Your task to perform on an android device: Search for pizza restaurants on Maps Image 0: 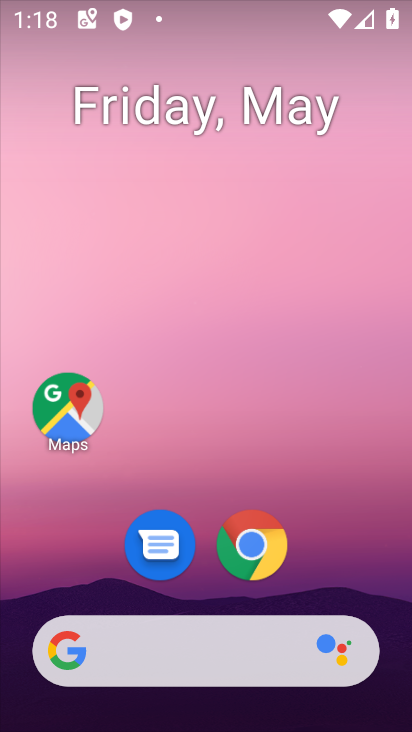
Step 0: click (82, 407)
Your task to perform on an android device: Search for pizza restaurants on Maps Image 1: 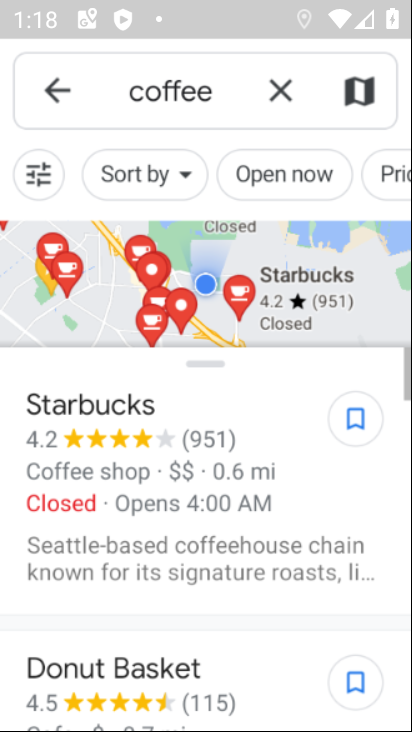
Step 1: click (272, 91)
Your task to perform on an android device: Search for pizza restaurants on Maps Image 2: 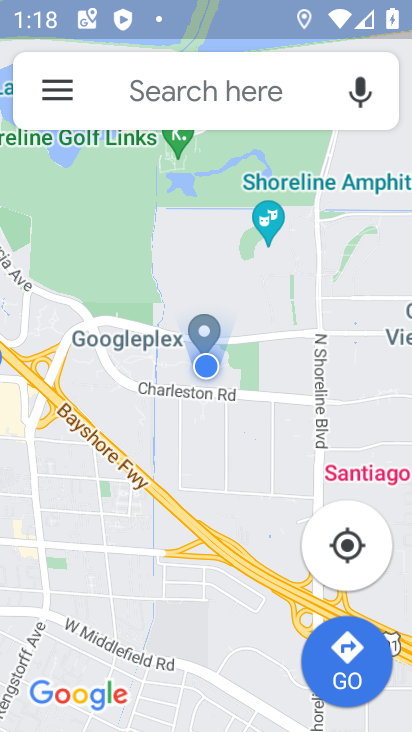
Step 2: click (208, 108)
Your task to perform on an android device: Search for pizza restaurants on Maps Image 3: 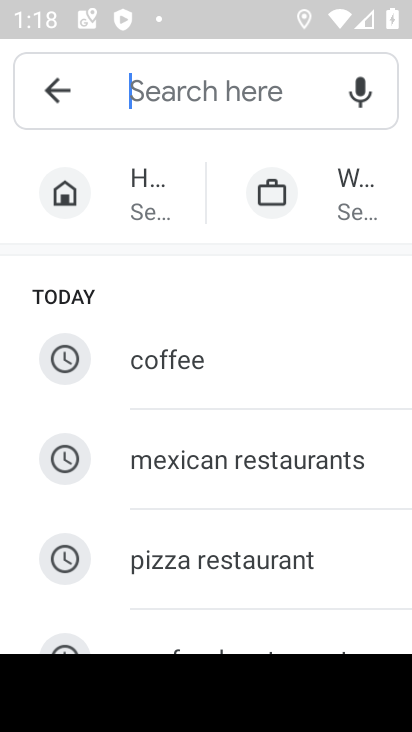
Step 3: click (246, 555)
Your task to perform on an android device: Search for pizza restaurants on Maps Image 4: 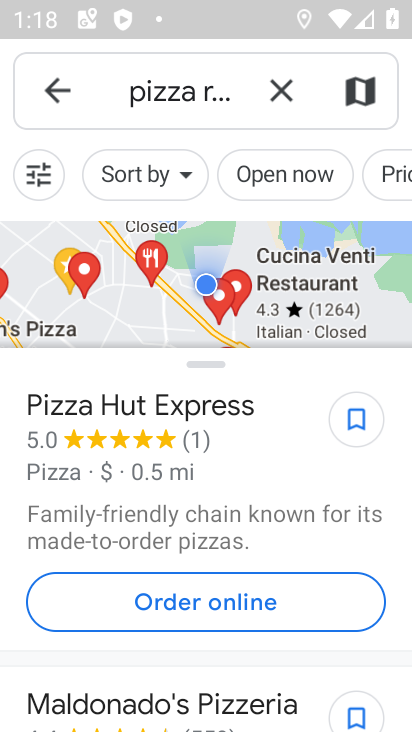
Step 4: task complete